Your task to perform on an android device: Open the calendar and show me this week's events? Image 0: 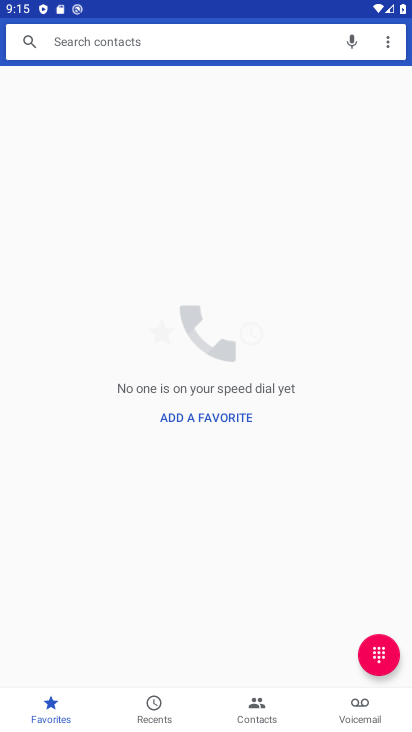
Step 0: press home button
Your task to perform on an android device: Open the calendar and show me this week's events? Image 1: 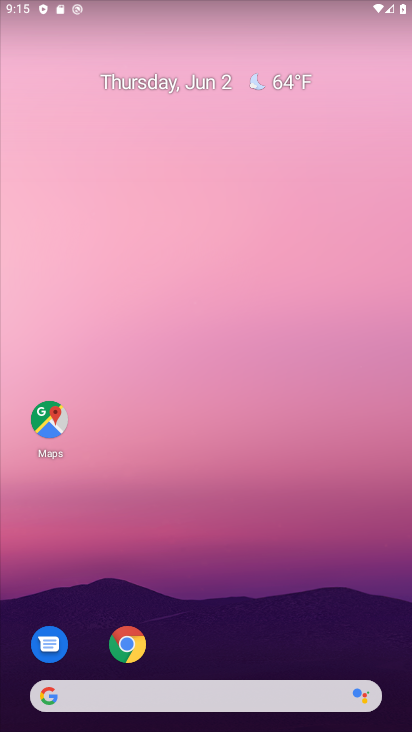
Step 1: drag from (306, 611) to (335, 63)
Your task to perform on an android device: Open the calendar and show me this week's events? Image 2: 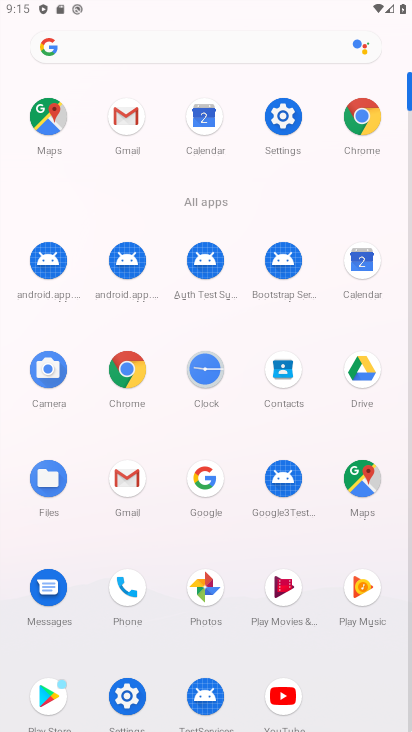
Step 2: click (367, 267)
Your task to perform on an android device: Open the calendar and show me this week's events? Image 3: 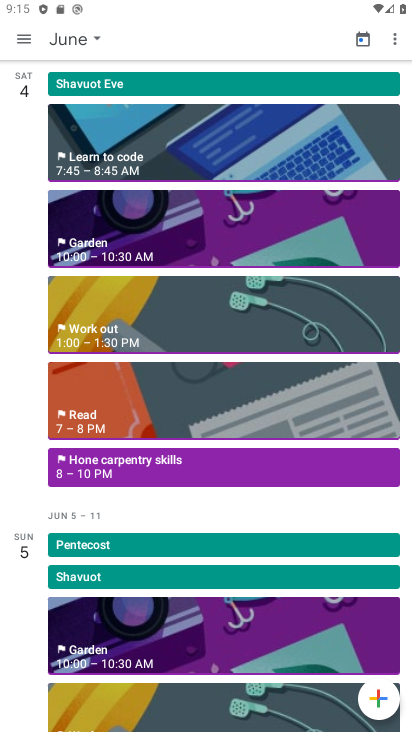
Step 3: click (97, 34)
Your task to perform on an android device: Open the calendar and show me this week's events? Image 4: 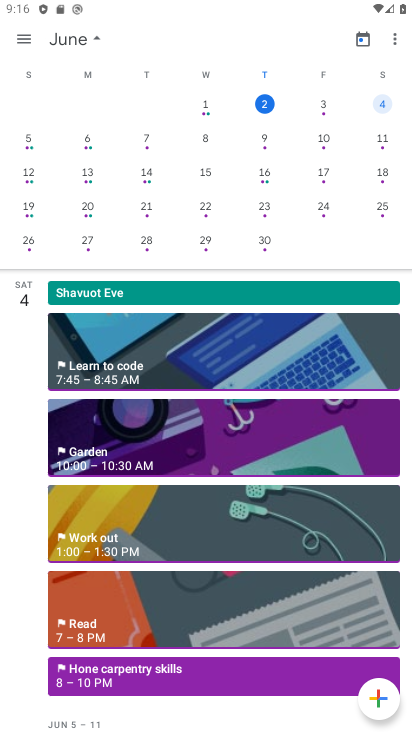
Step 4: click (97, 34)
Your task to perform on an android device: Open the calendar and show me this week's events? Image 5: 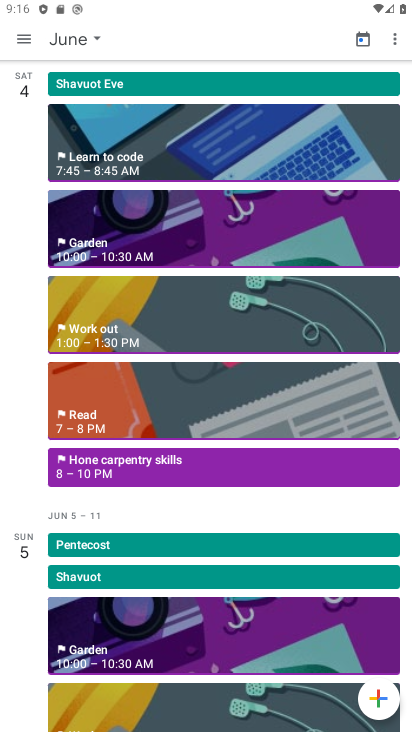
Step 5: task complete